Your task to perform on an android device: delete location history Image 0: 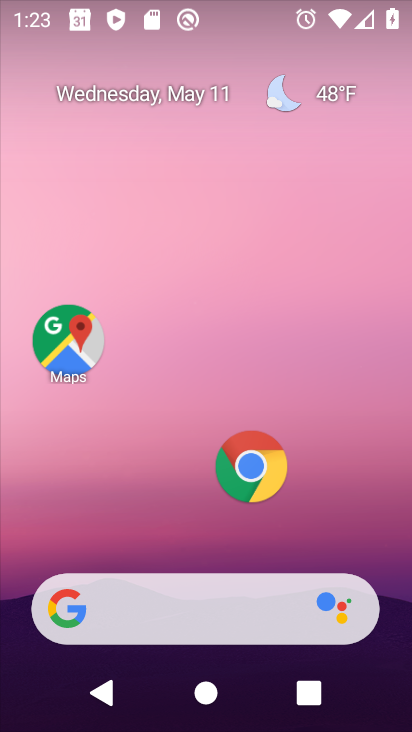
Step 0: click (70, 348)
Your task to perform on an android device: delete location history Image 1: 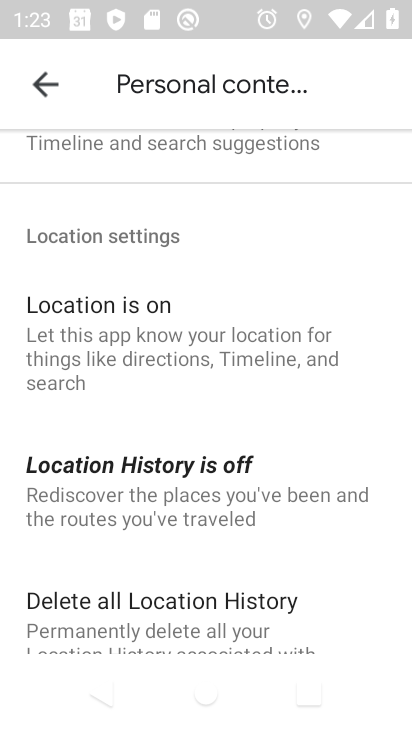
Step 1: click (127, 628)
Your task to perform on an android device: delete location history Image 2: 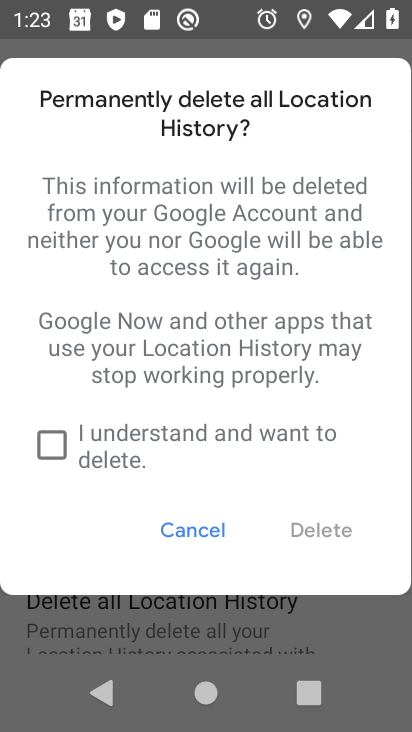
Step 2: click (50, 445)
Your task to perform on an android device: delete location history Image 3: 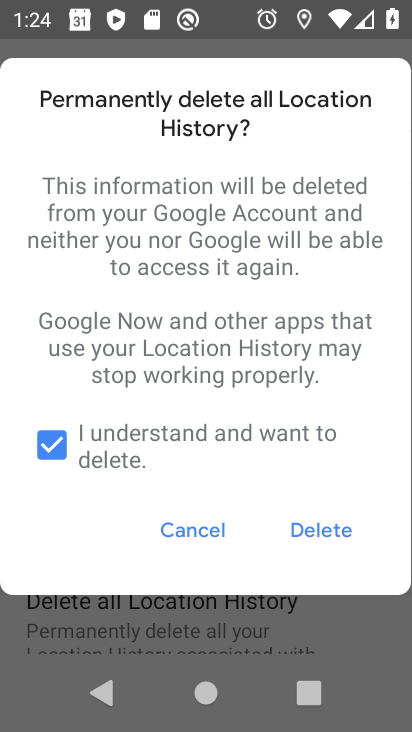
Step 3: click (331, 535)
Your task to perform on an android device: delete location history Image 4: 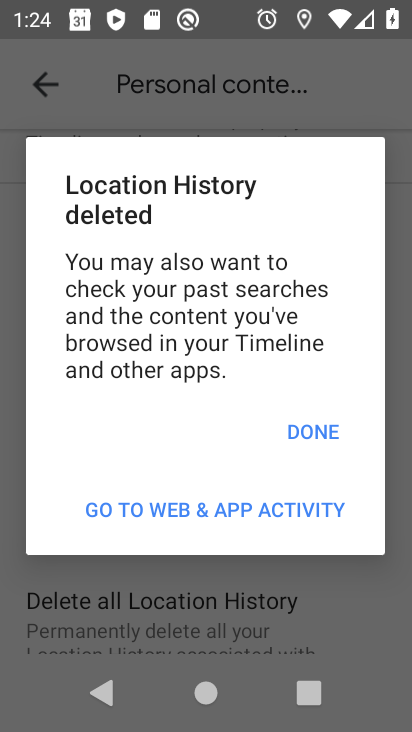
Step 4: click (317, 436)
Your task to perform on an android device: delete location history Image 5: 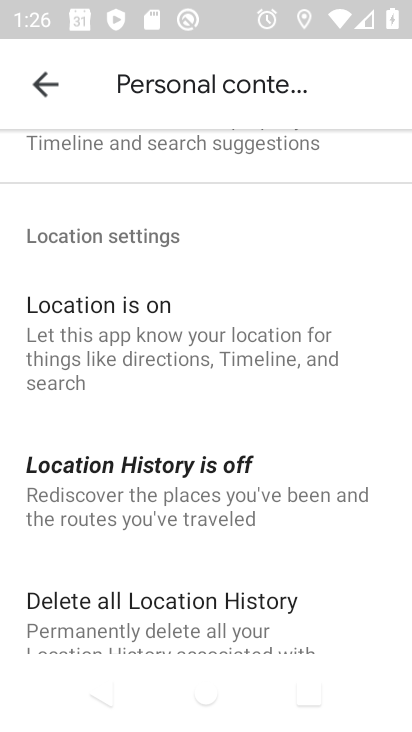
Step 5: task complete